Your task to perform on an android device: install app "TextNow: Call + Text Unlimited" Image 0: 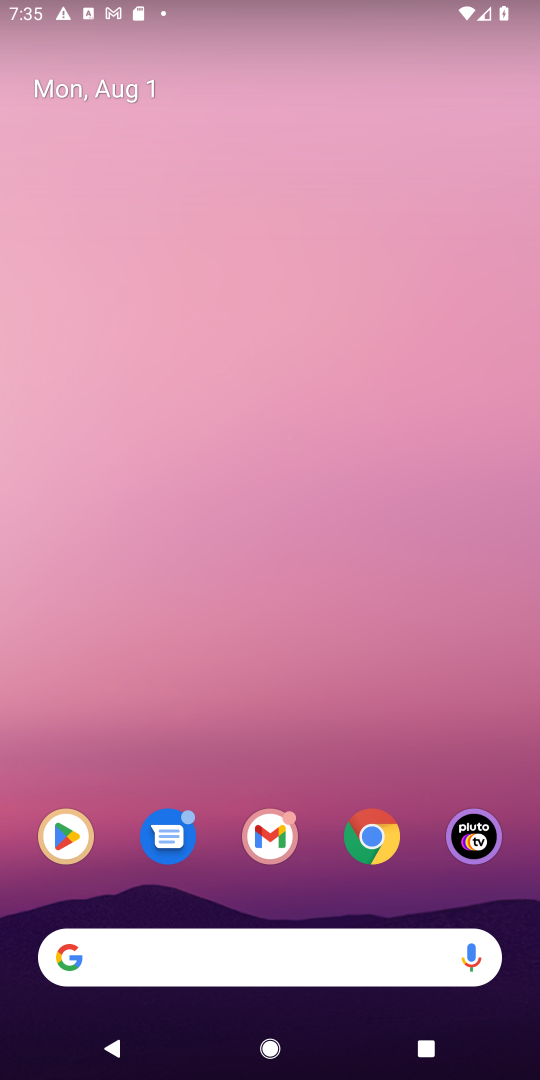
Step 0: click (71, 835)
Your task to perform on an android device: install app "TextNow: Call + Text Unlimited" Image 1: 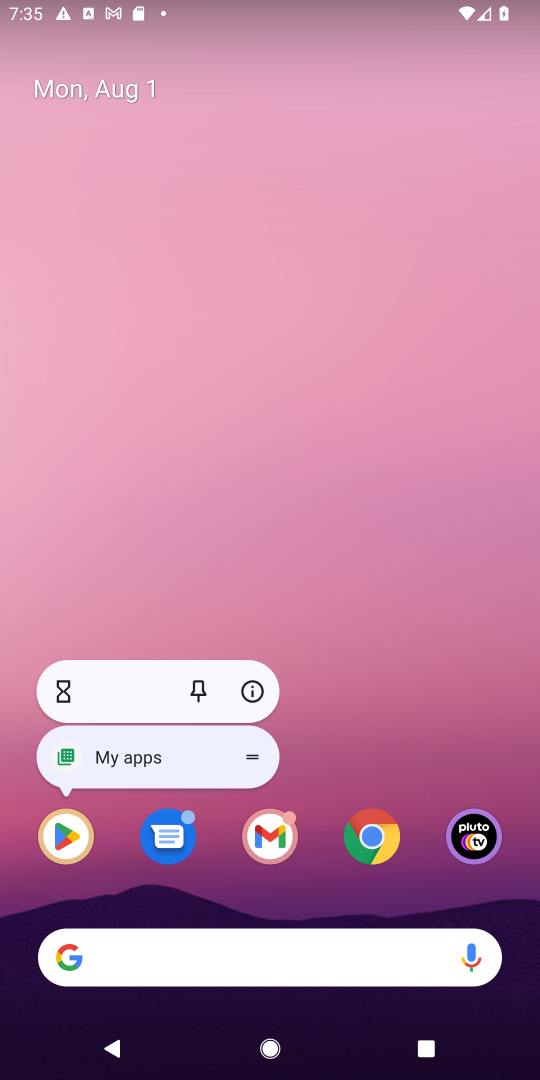
Step 1: click (71, 838)
Your task to perform on an android device: install app "TextNow: Call + Text Unlimited" Image 2: 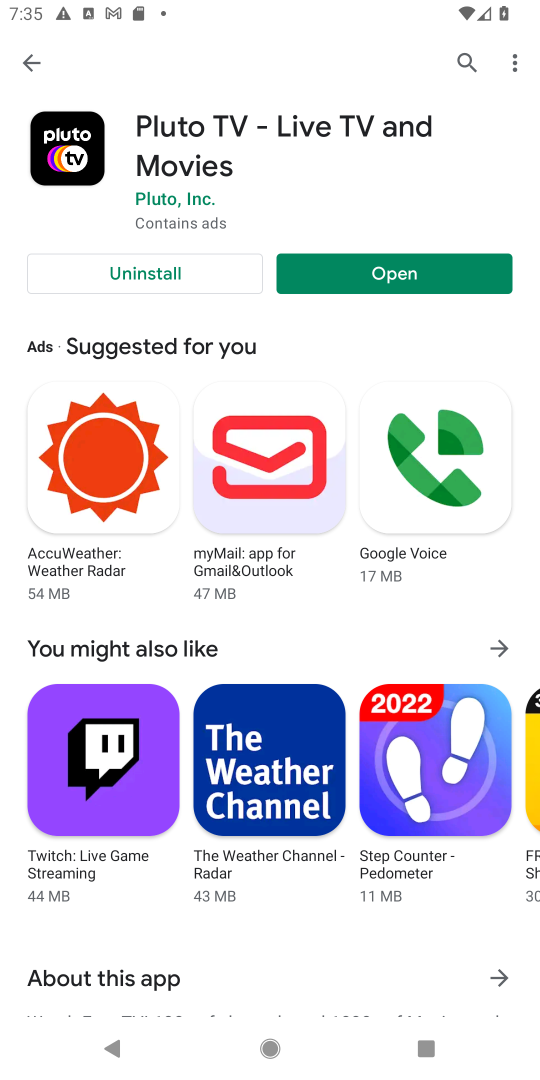
Step 2: click (463, 56)
Your task to perform on an android device: install app "TextNow: Call + Text Unlimited" Image 3: 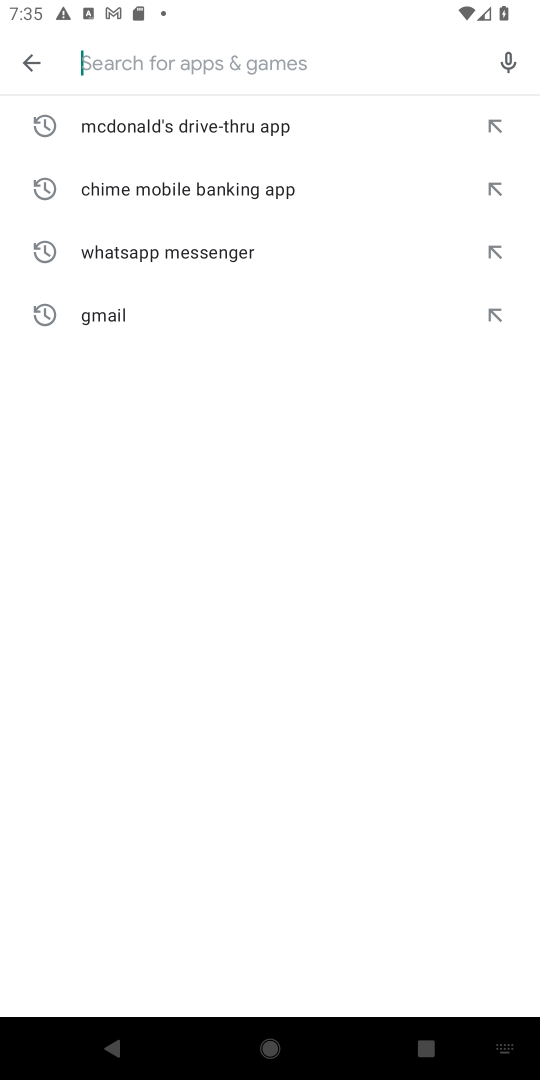
Step 3: type "TextNow: Call + Text Unlimited"
Your task to perform on an android device: install app "TextNow: Call + Text Unlimited" Image 4: 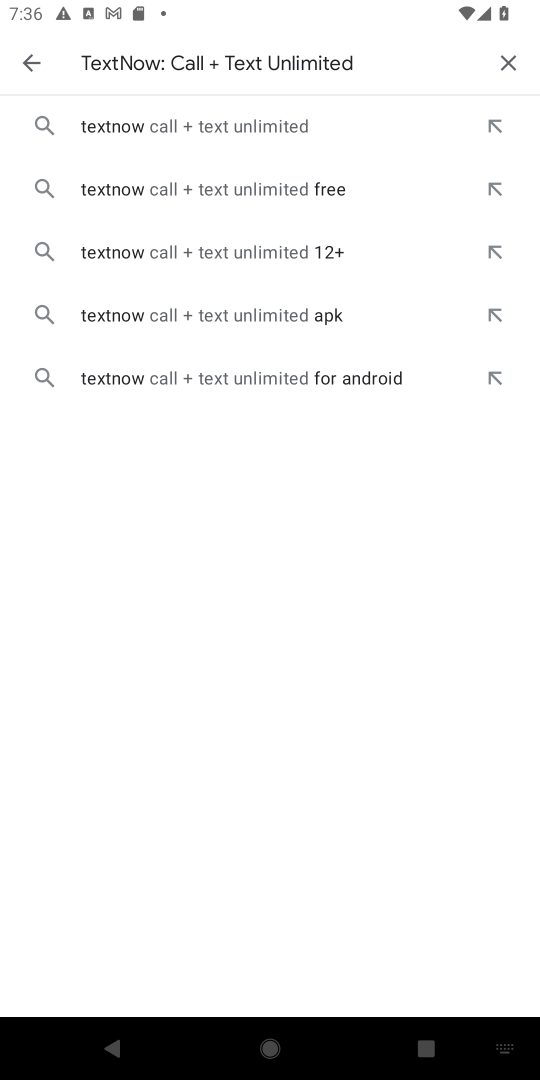
Step 4: click (298, 122)
Your task to perform on an android device: install app "TextNow: Call + Text Unlimited" Image 5: 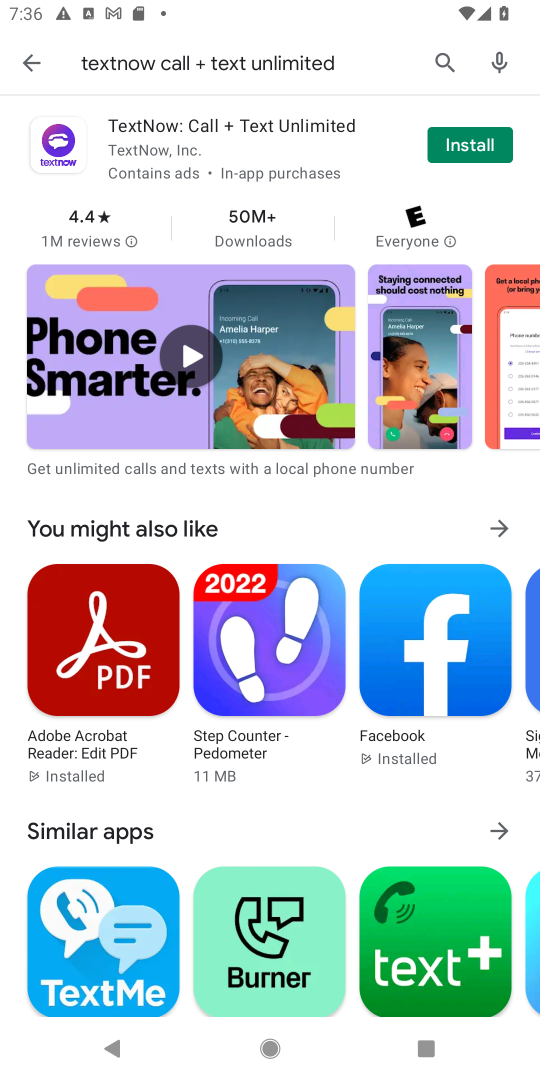
Step 5: click (472, 142)
Your task to perform on an android device: install app "TextNow: Call + Text Unlimited" Image 6: 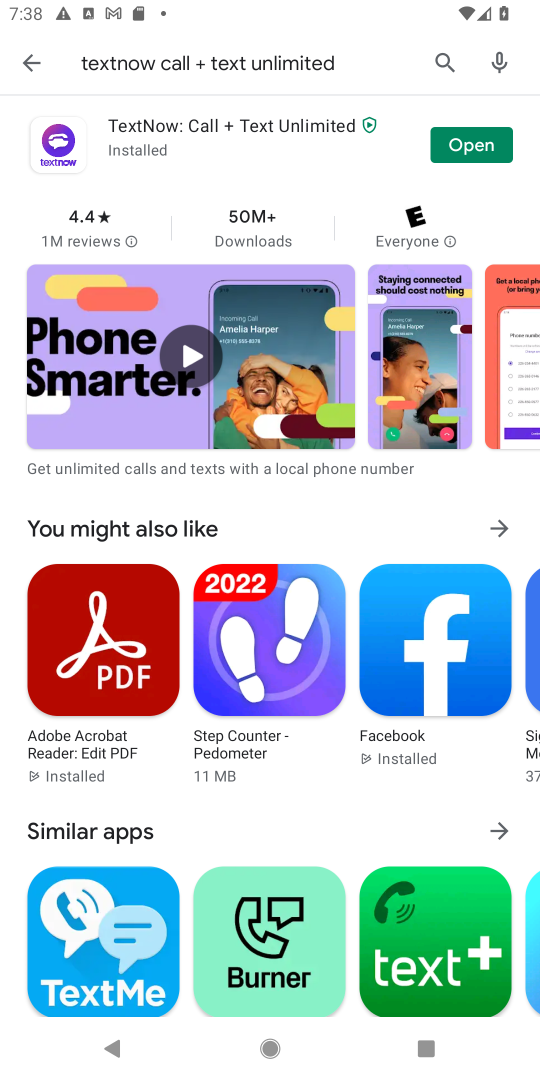
Step 6: task complete